Your task to perform on an android device: Open ESPN.com Image 0: 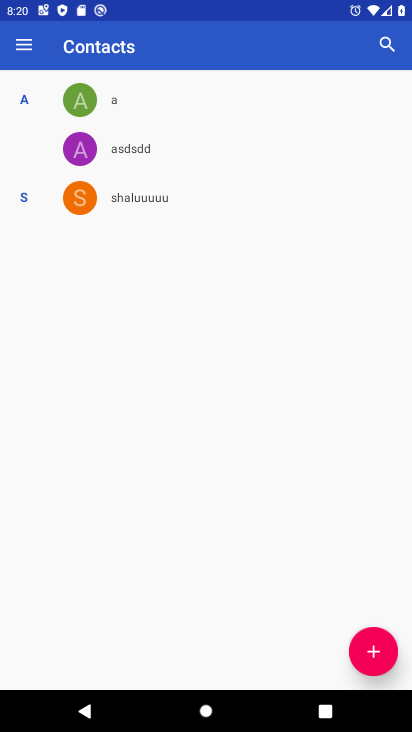
Step 0: click (298, 585)
Your task to perform on an android device: Open ESPN.com Image 1: 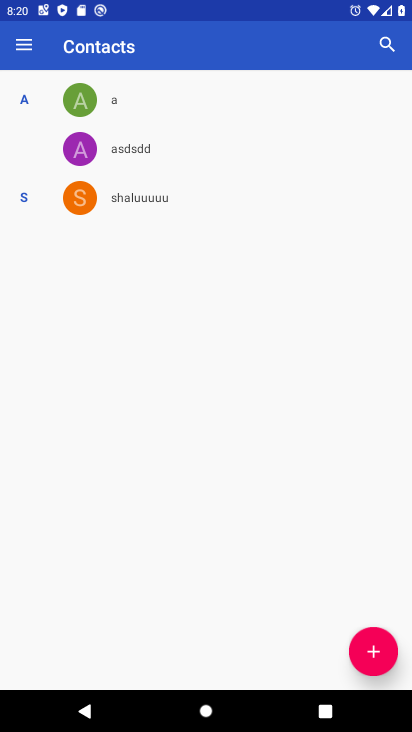
Step 1: press home button
Your task to perform on an android device: Open ESPN.com Image 2: 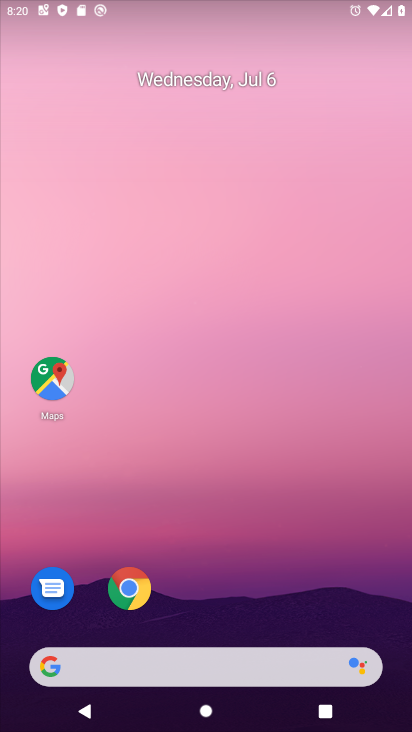
Step 2: drag from (276, 595) to (210, 19)
Your task to perform on an android device: Open ESPN.com Image 3: 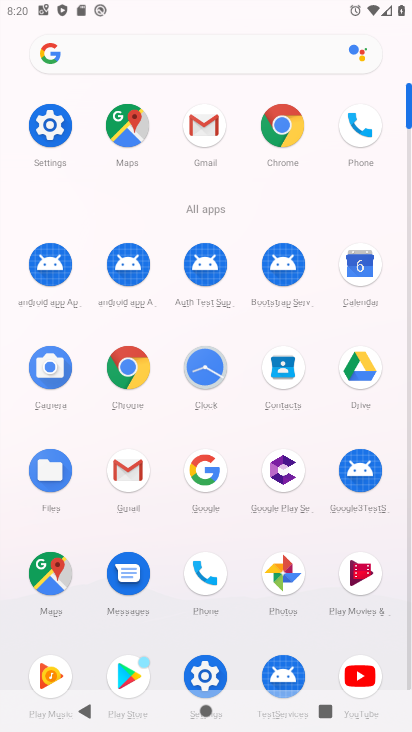
Step 3: click (106, 362)
Your task to perform on an android device: Open ESPN.com Image 4: 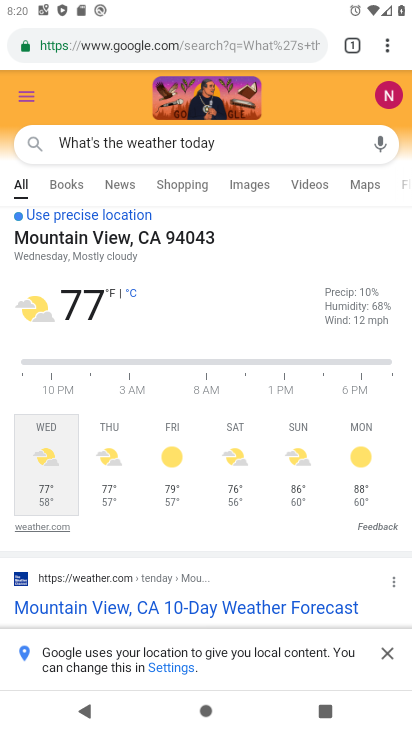
Step 4: click (390, 35)
Your task to perform on an android device: Open ESPN.com Image 5: 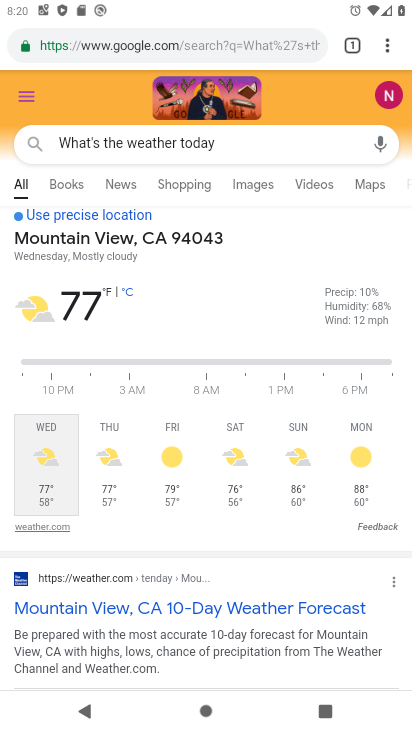
Step 5: click (401, 36)
Your task to perform on an android device: Open ESPN.com Image 6: 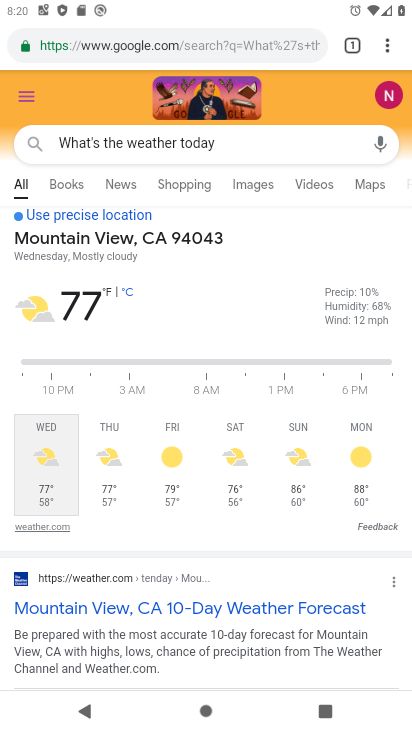
Step 6: click (388, 38)
Your task to perform on an android device: Open ESPN.com Image 7: 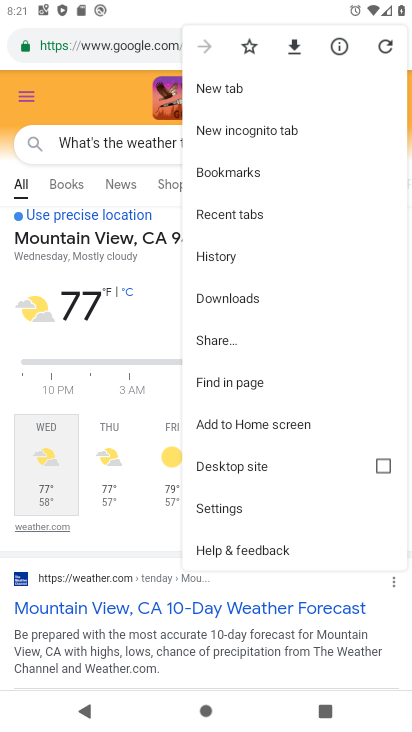
Step 7: click (215, 89)
Your task to perform on an android device: Open ESPN.com Image 8: 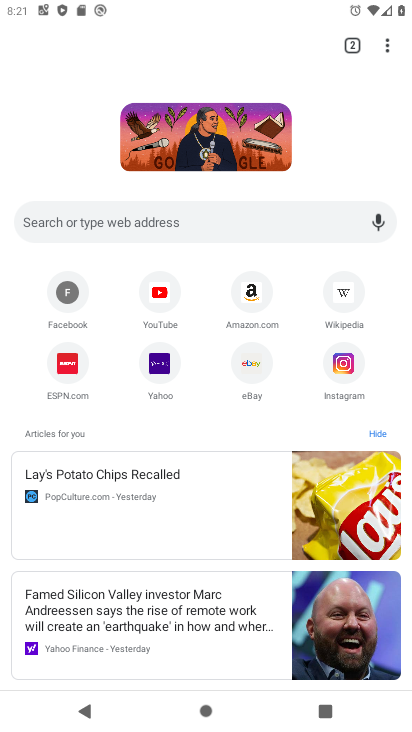
Step 8: click (81, 363)
Your task to perform on an android device: Open ESPN.com Image 9: 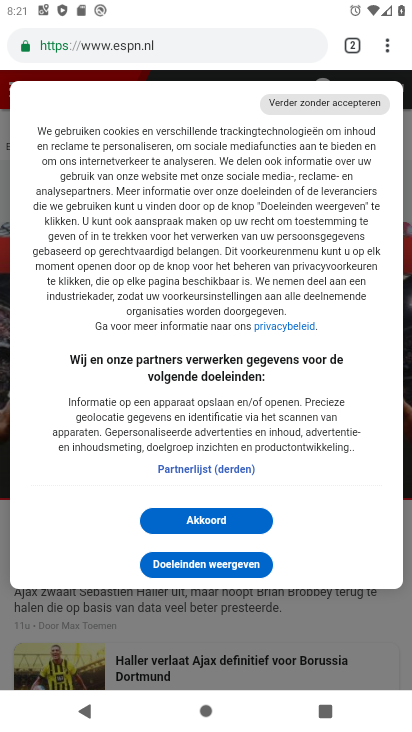
Step 9: click (166, 510)
Your task to perform on an android device: Open ESPN.com Image 10: 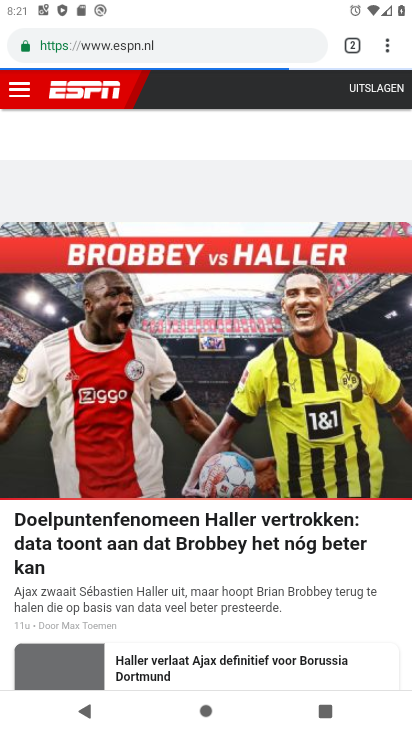
Step 10: task complete